Your task to perform on an android device: toggle notification dots Image 0: 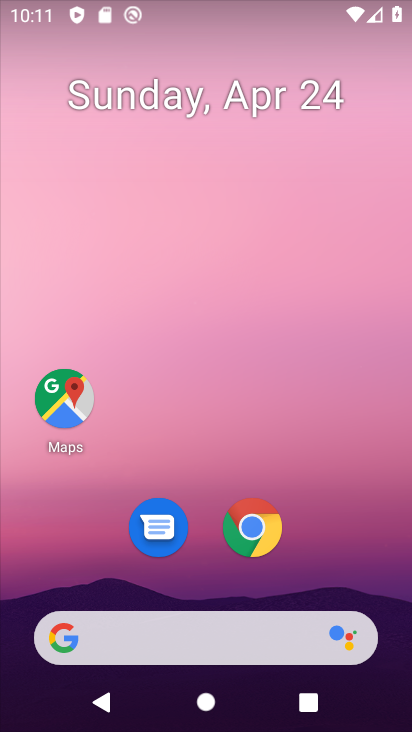
Step 0: drag from (193, 467) to (290, 7)
Your task to perform on an android device: toggle notification dots Image 1: 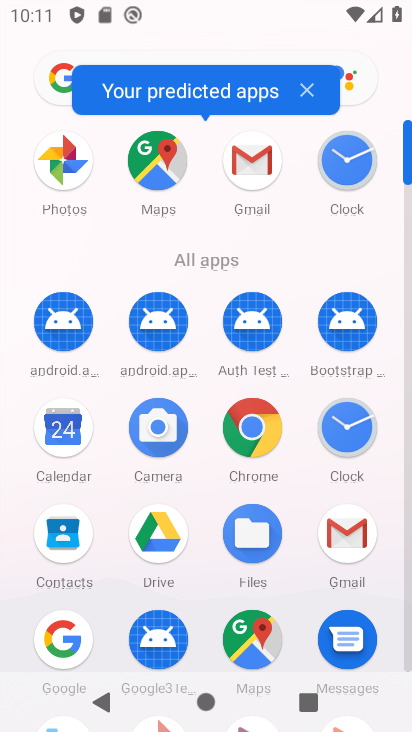
Step 1: drag from (190, 568) to (263, 0)
Your task to perform on an android device: toggle notification dots Image 2: 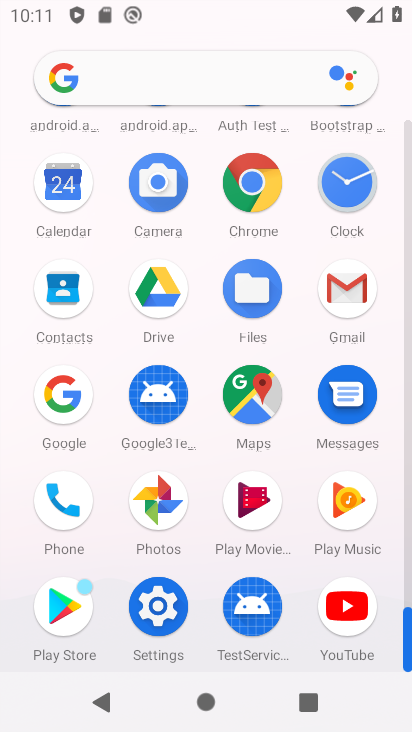
Step 2: click (154, 607)
Your task to perform on an android device: toggle notification dots Image 3: 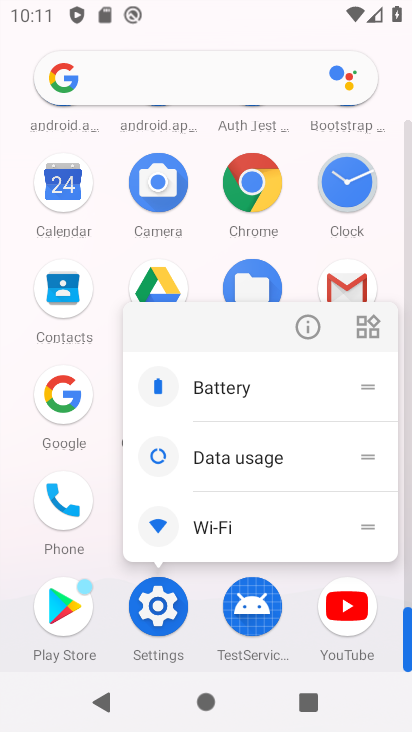
Step 3: click (154, 606)
Your task to perform on an android device: toggle notification dots Image 4: 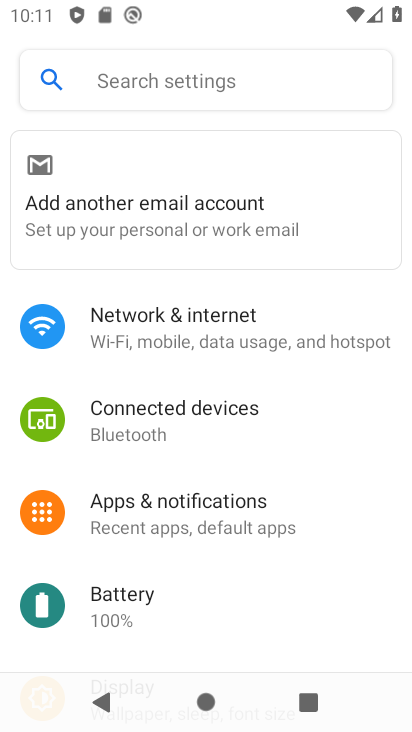
Step 4: click (178, 521)
Your task to perform on an android device: toggle notification dots Image 5: 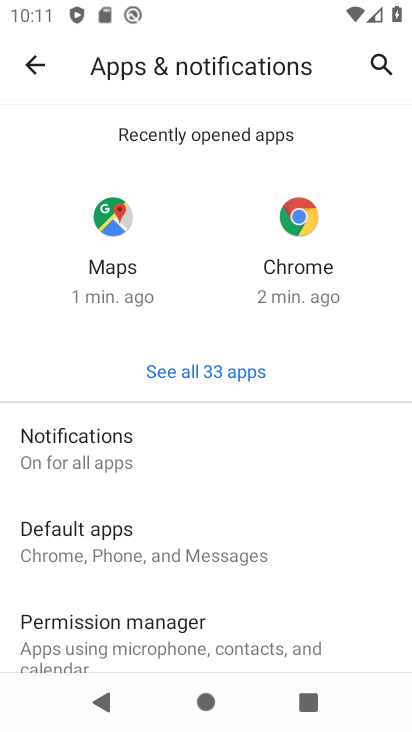
Step 5: click (94, 450)
Your task to perform on an android device: toggle notification dots Image 6: 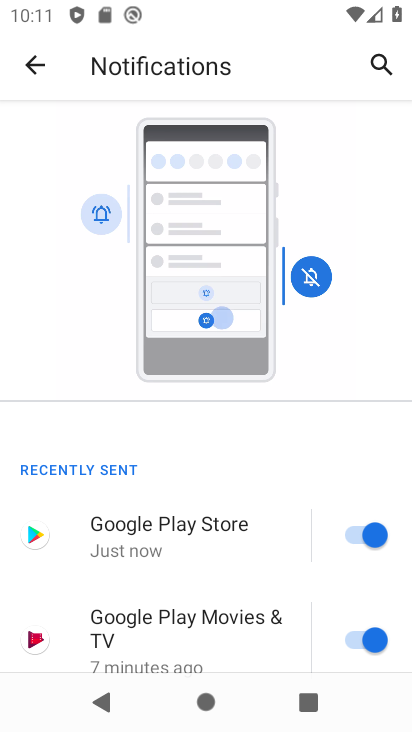
Step 6: drag from (165, 527) to (257, 107)
Your task to perform on an android device: toggle notification dots Image 7: 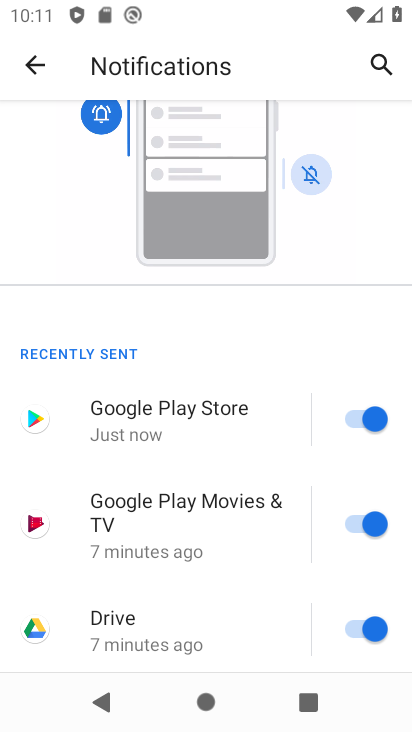
Step 7: drag from (195, 570) to (302, 5)
Your task to perform on an android device: toggle notification dots Image 8: 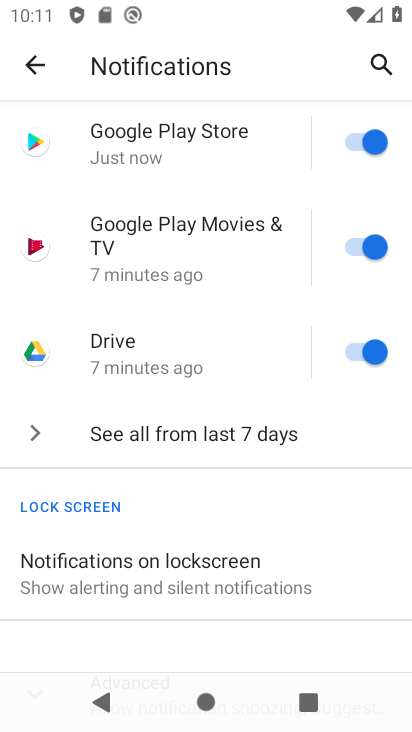
Step 8: drag from (140, 576) to (229, 135)
Your task to perform on an android device: toggle notification dots Image 9: 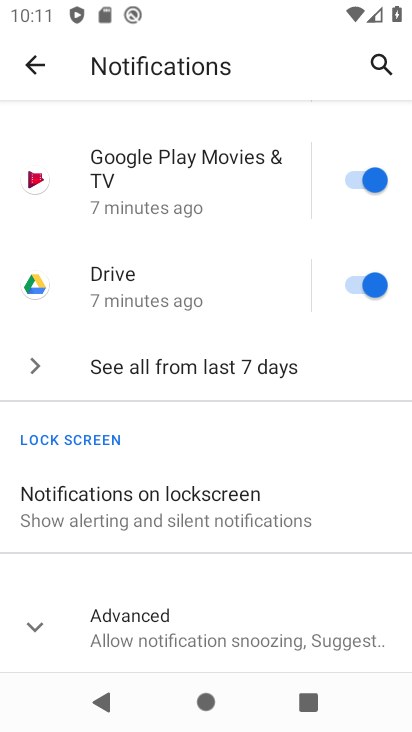
Step 9: click (129, 620)
Your task to perform on an android device: toggle notification dots Image 10: 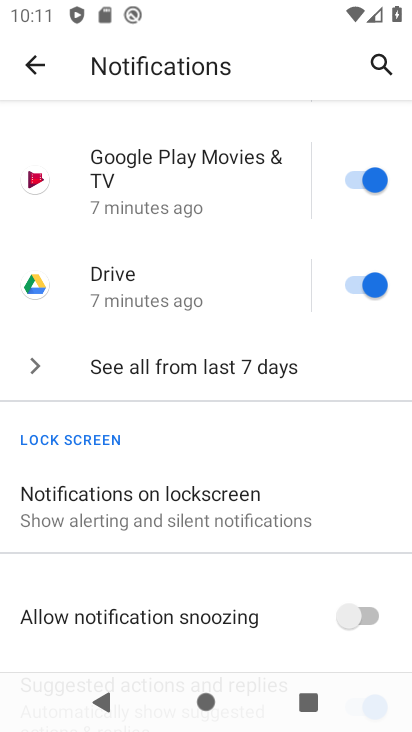
Step 10: drag from (202, 592) to (293, 161)
Your task to perform on an android device: toggle notification dots Image 11: 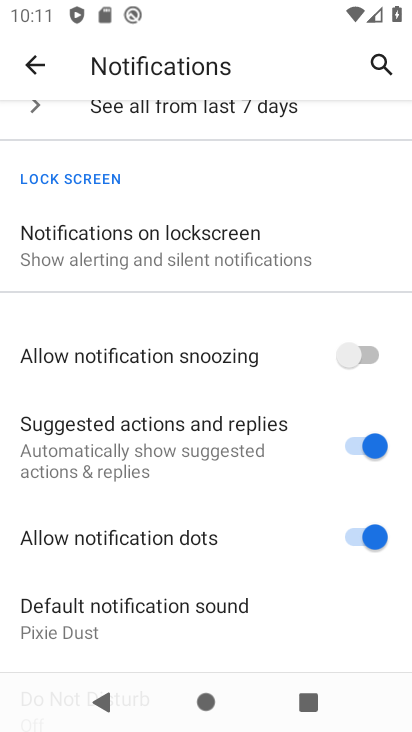
Step 11: click (347, 536)
Your task to perform on an android device: toggle notification dots Image 12: 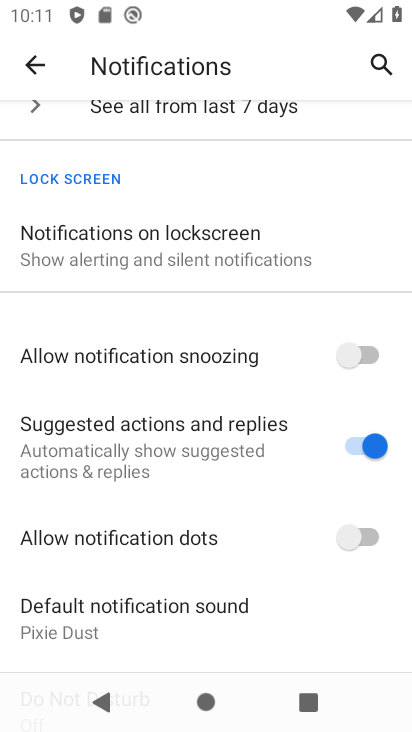
Step 12: task complete